Your task to perform on an android device: Open Google Chrome Image 0: 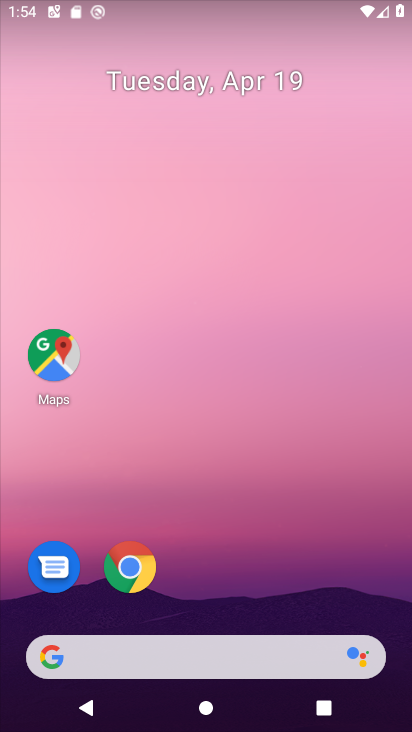
Step 0: click (128, 572)
Your task to perform on an android device: Open Google Chrome Image 1: 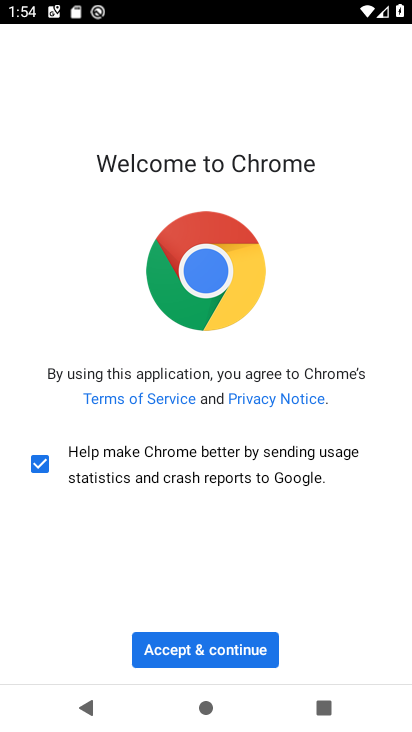
Step 1: click (172, 646)
Your task to perform on an android device: Open Google Chrome Image 2: 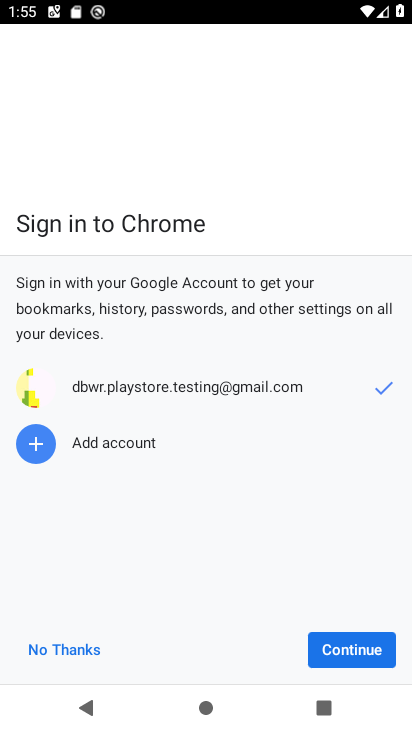
Step 2: click (336, 656)
Your task to perform on an android device: Open Google Chrome Image 3: 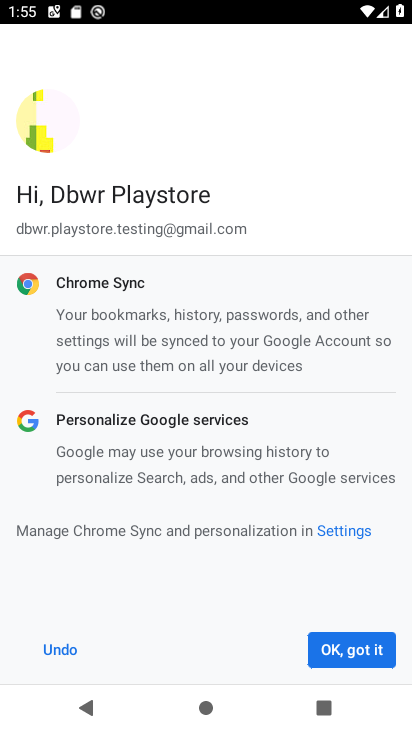
Step 3: click (336, 656)
Your task to perform on an android device: Open Google Chrome Image 4: 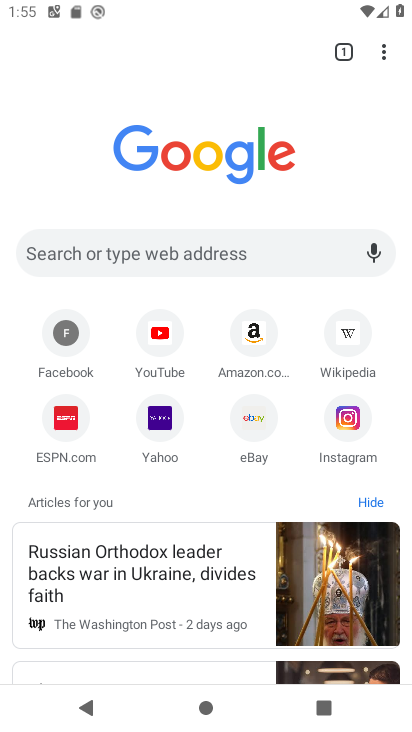
Step 4: task complete